Your task to perform on an android device: Show me recent news Image 0: 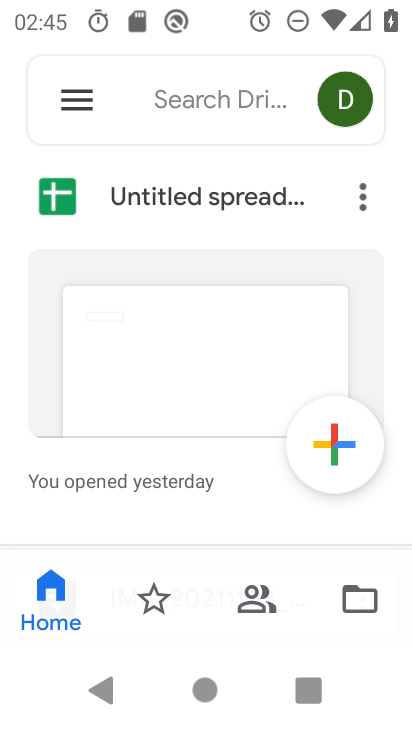
Step 0: press home button
Your task to perform on an android device: Show me recent news Image 1: 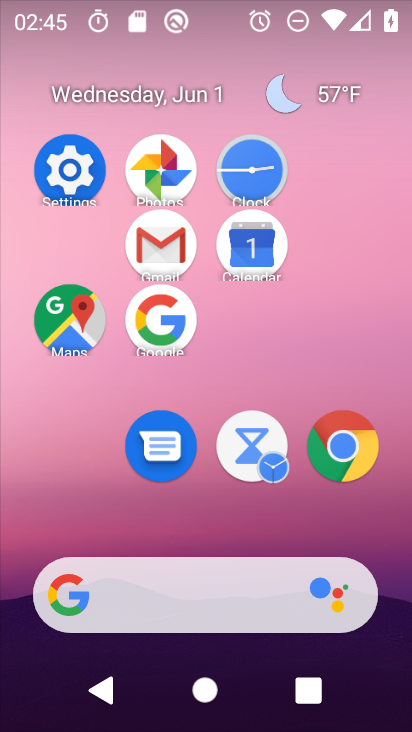
Step 1: click (167, 320)
Your task to perform on an android device: Show me recent news Image 2: 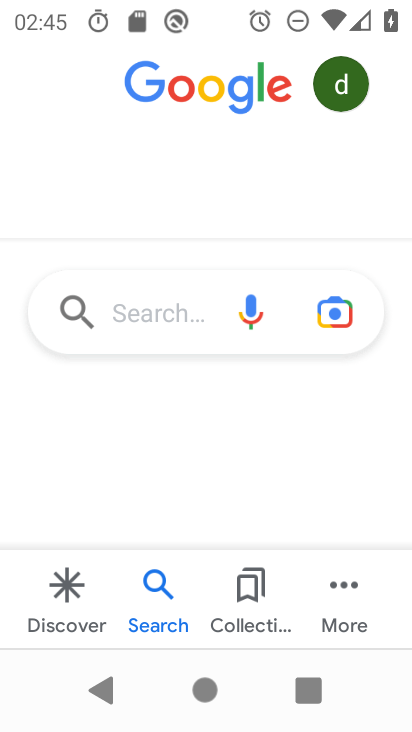
Step 2: click (168, 142)
Your task to perform on an android device: Show me recent news Image 3: 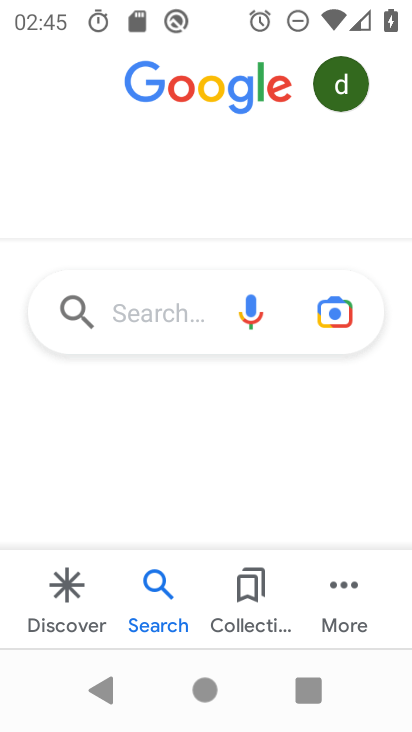
Step 3: click (176, 310)
Your task to perform on an android device: Show me recent news Image 4: 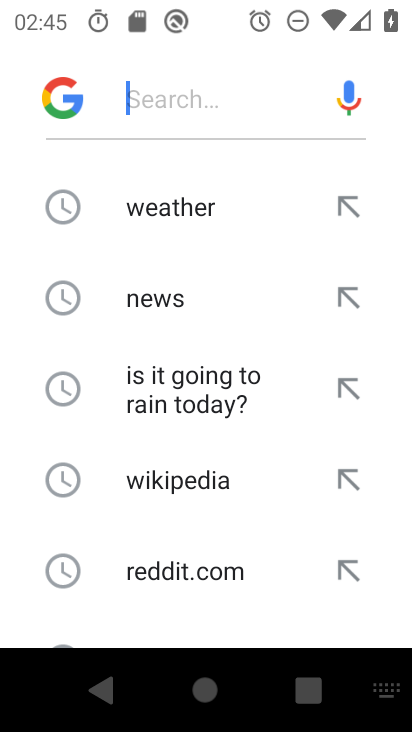
Step 4: drag from (184, 519) to (191, 187)
Your task to perform on an android device: Show me recent news Image 5: 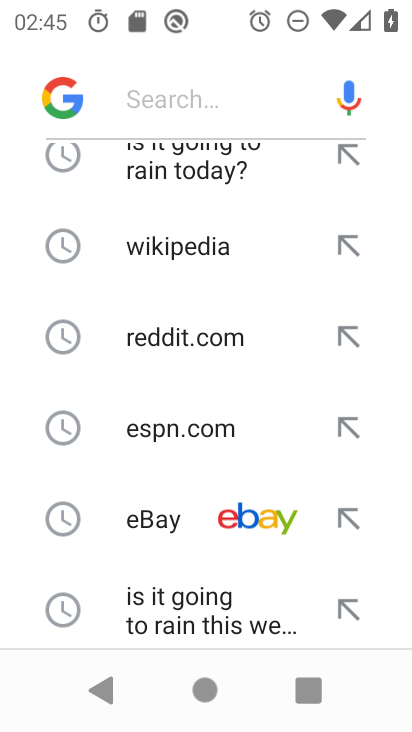
Step 5: drag from (169, 552) to (188, 187)
Your task to perform on an android device: Show me recent news Image 6: 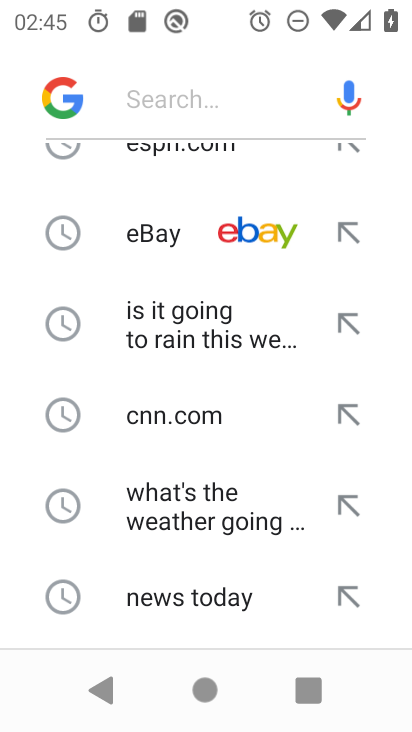
Step 6: drag from (208, 557) to (206, 184)
Your task to perform on an android device: Show me recent news Image 7: 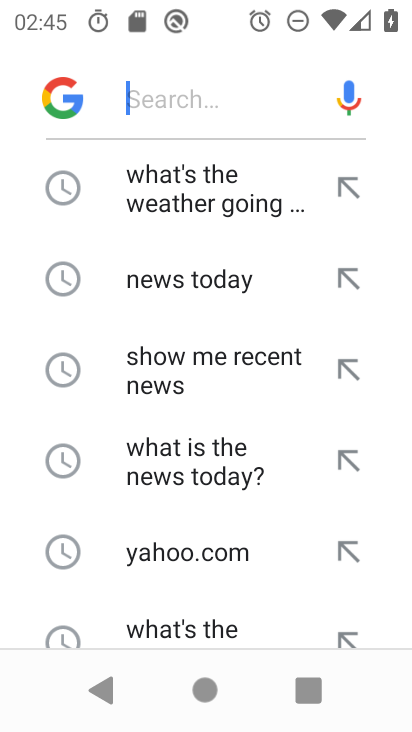
Step 7: drag from (217, 516) to (195, 197)
Your task to perform on an android device: Show me recent news Image 8: 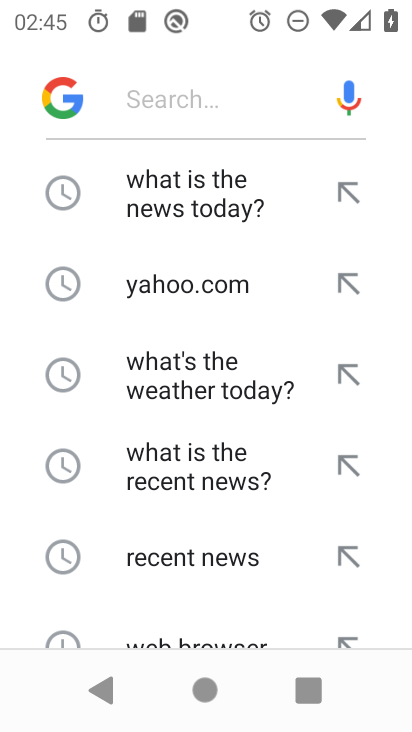
Step 8: click (200, 548)
Your task to perform on an android device: Show me recent news Image 9: 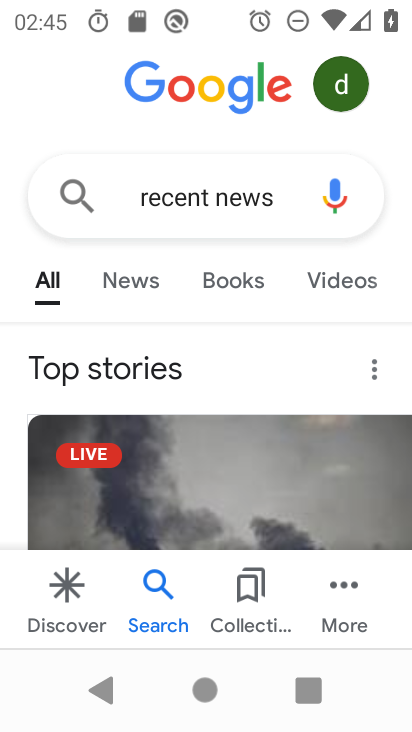
Step 9: task complete